Your task to perform on an android device: What's on my calendar today? Image 0: 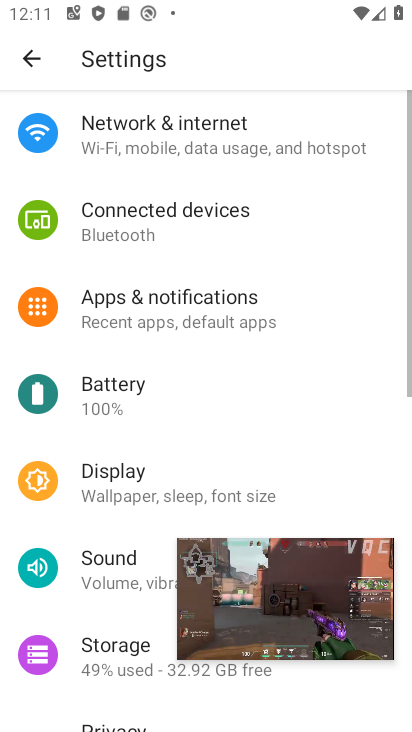
Step 0: press home button
Your task to perform on an android device: What's on my calendar today? Image 1: 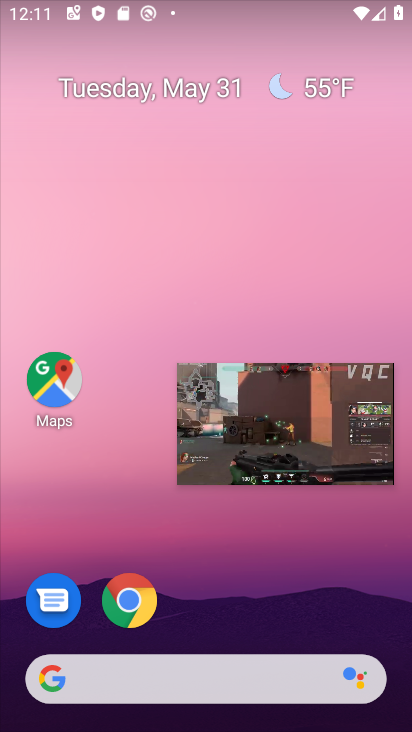
Step 1: drag from (269, 219) to (281, 150)
Your task to perform on an android device: What's on my calendar today? Image 2: 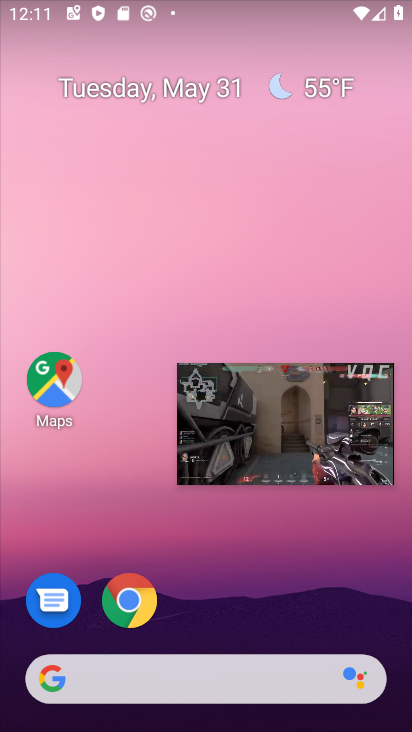
Step 2: press home button
Your task to perform on an android device: What's on my calendar today? Image 3: 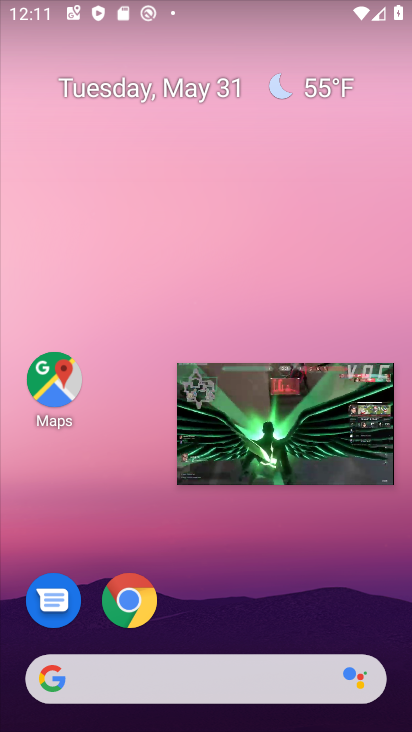
Step 3: drag from (280, 568) to (340, 54)
Your task to perform on an android device: What's on my calendar today? Image 4: 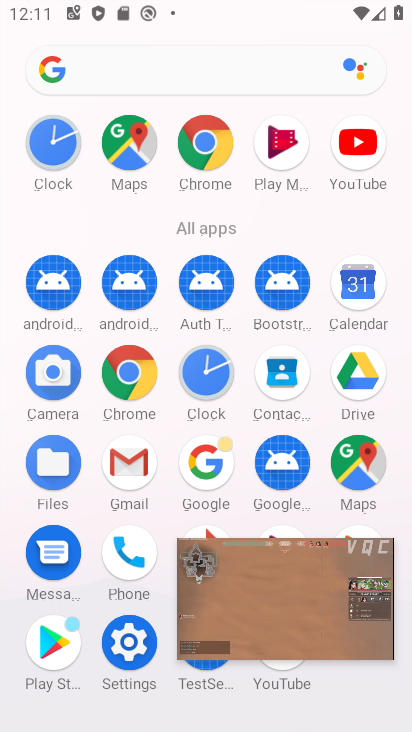
Step 4: click (359, 273)
Your task to perform on an android device: What's on my calendar today? Image 5: 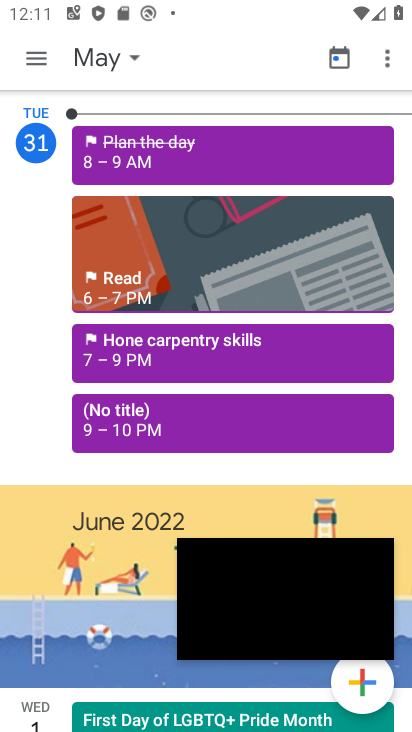
Step 5: task complete